Your task to perform on an android device: snooze an email in the gmail app Image 0: 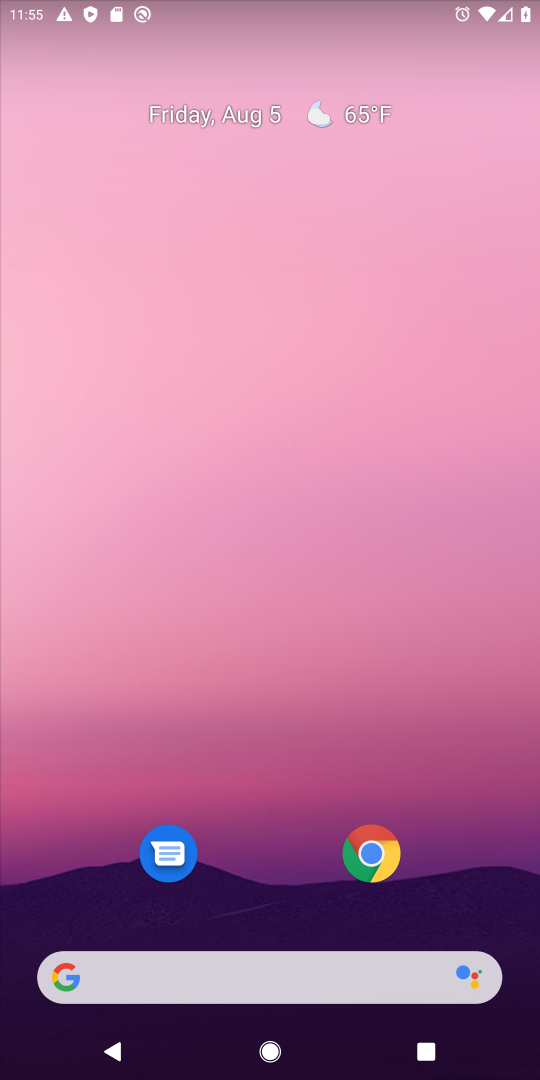
Step 0: drag from (272, 962) to (220, 14)
Your task to perform on an android device: snooze an email in the gmail app Image 1: 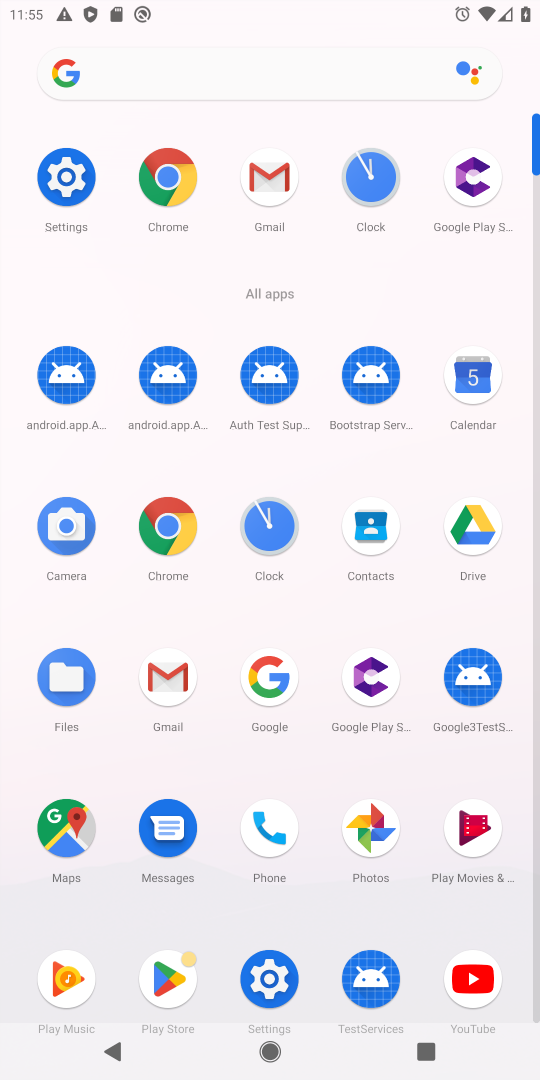
Step 1: click (150, 685)
Your task to perform on an android device: snooze an email in the gmail app Image 2: 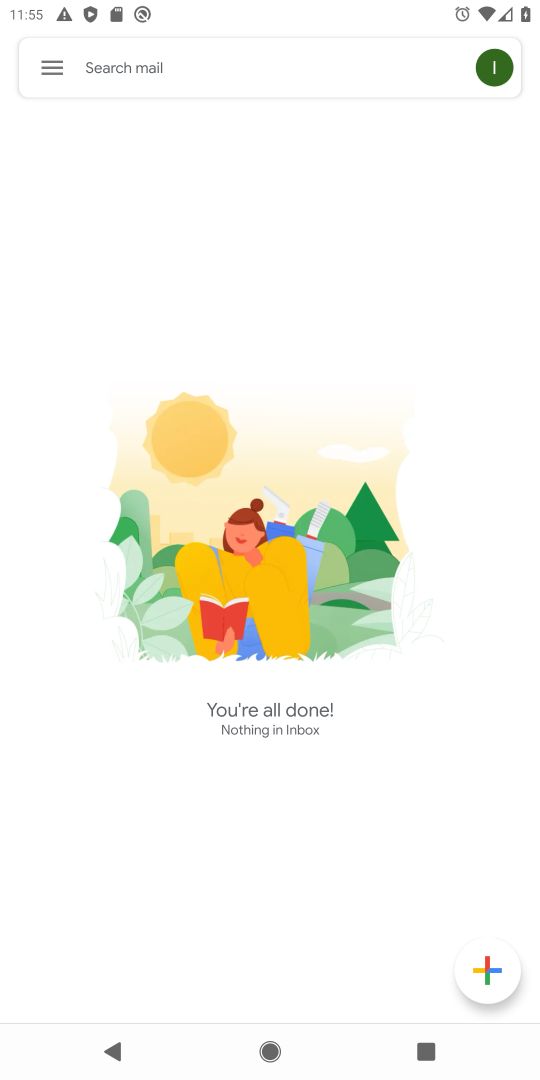
Step 2: click (54, 75)
Your task to perform on an android device: snooze an email in the gmail app Image 3: 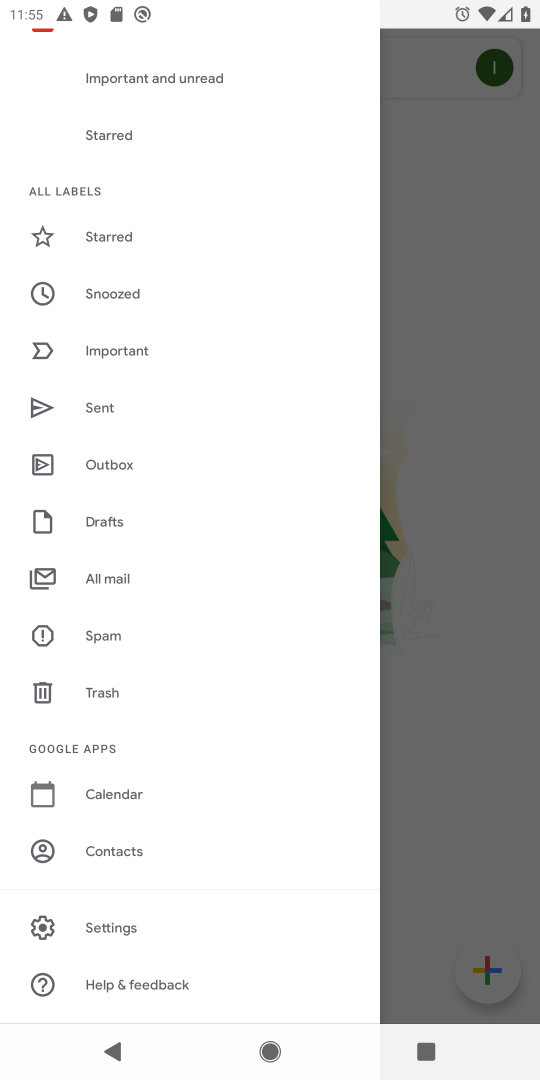
Step 3: click (122, 579)
Your task to perform on an android device: snooze an email in the gmail app Image 4: 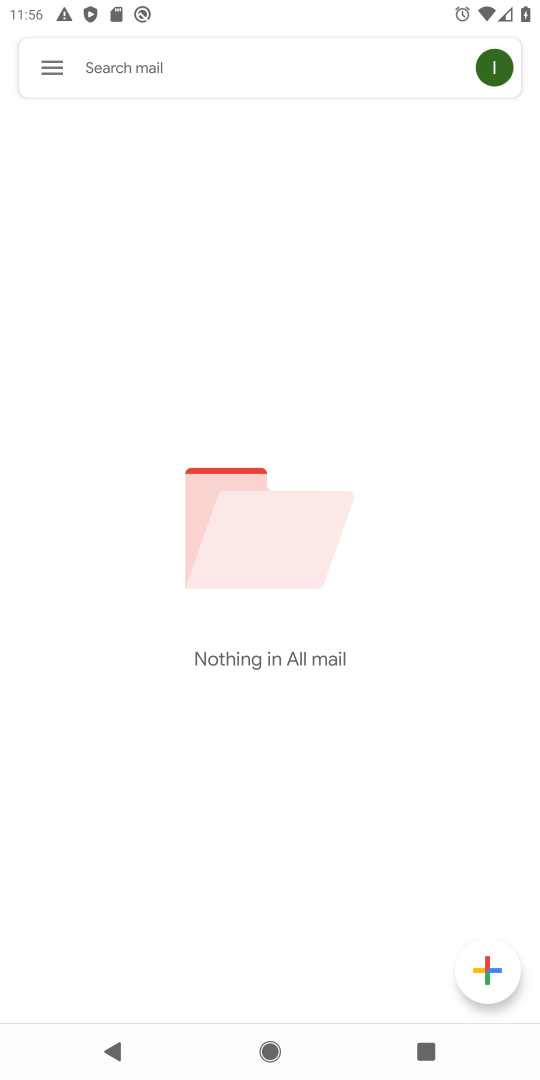
Step 4: task complete